Your task to perform on an android device: clear history in the chrome app Image 0: 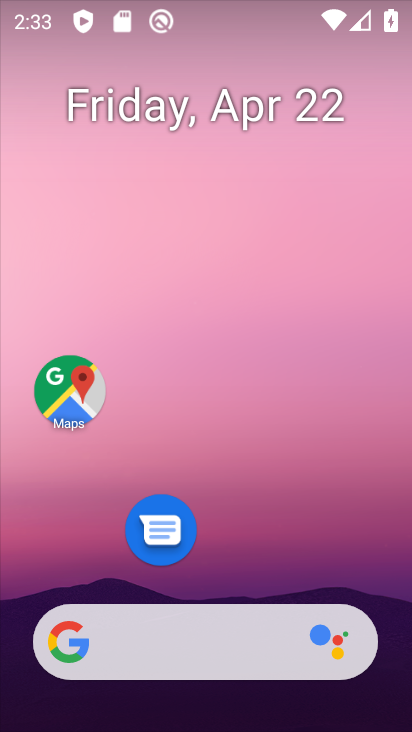
Step 0: drag from (263, 557) to (217, 19)
Your task to perform on an android device: clear history in the chrome app Image 1: 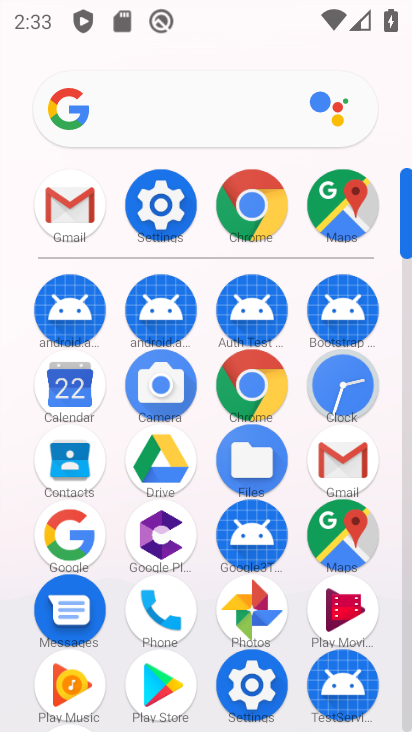
Step 1: click (242, 196)
Your task to perform on an android device: clear history in the chrome app Image 2: 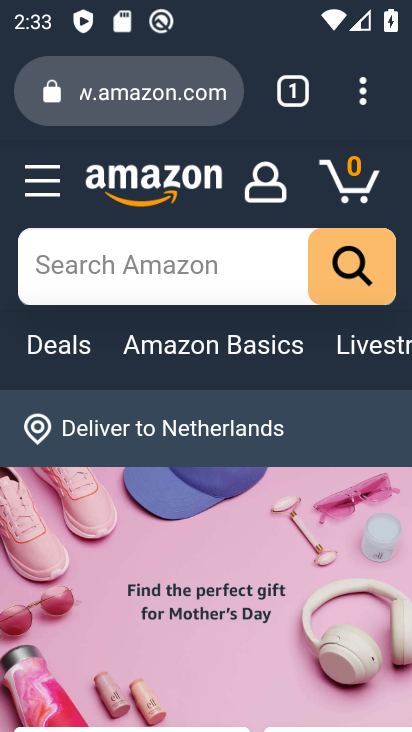
Step 2: click (359, 101)
Your task to perform on an android device: clear history in the chrome app Image 3: 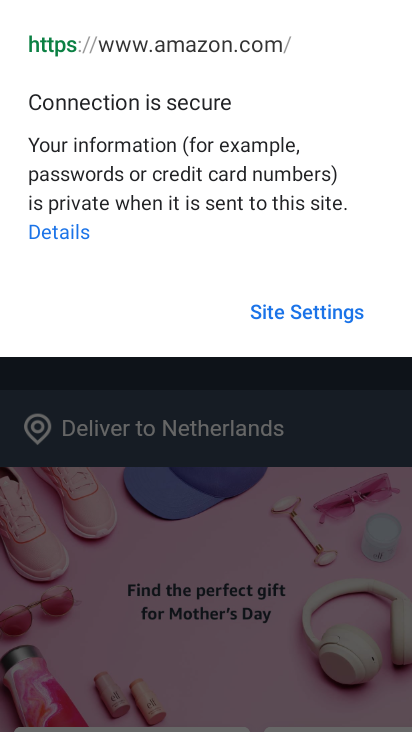
Step 3: click (262, 407)
Your task to perform on an android device: clear history in the chrome app Image 4: 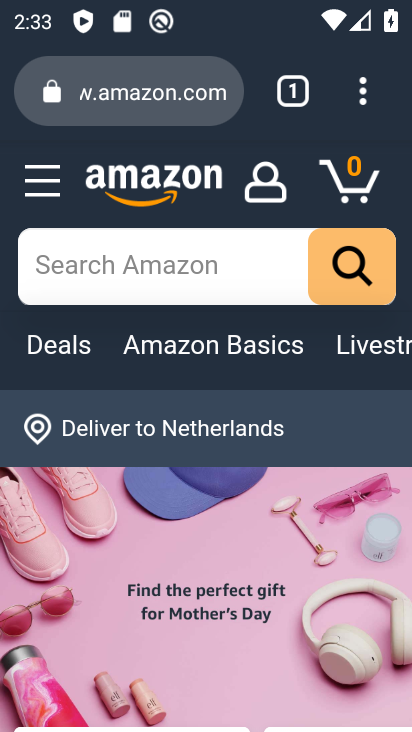
Step 4: click (368, 105)
Your task to perform on an android device: clear history in the chrome app Image 5: 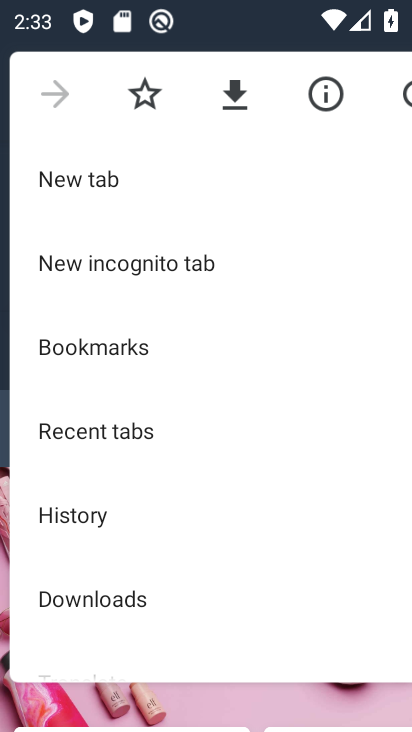
Step 5: click (325, 519)
Your task to perform on an android device: clear history in the chrome app Image 6: 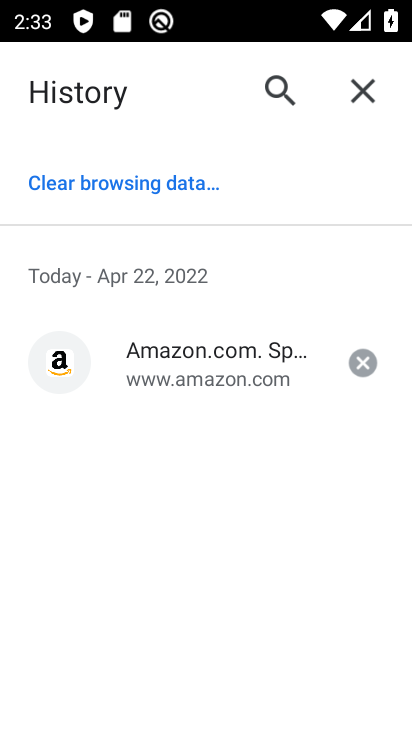
Step 6: click (111, 182)
Your task to perform on an android device: clear history in the chrome app Image 7: 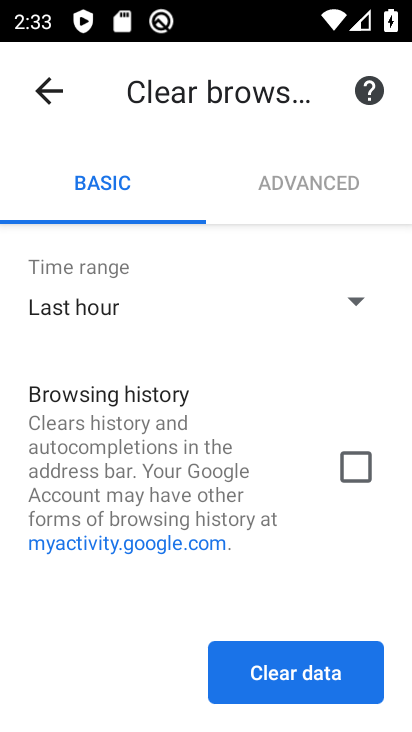
Step 7: click (354, 467)
Your task to perform on an android device: clear history in the chrome app Image 8: 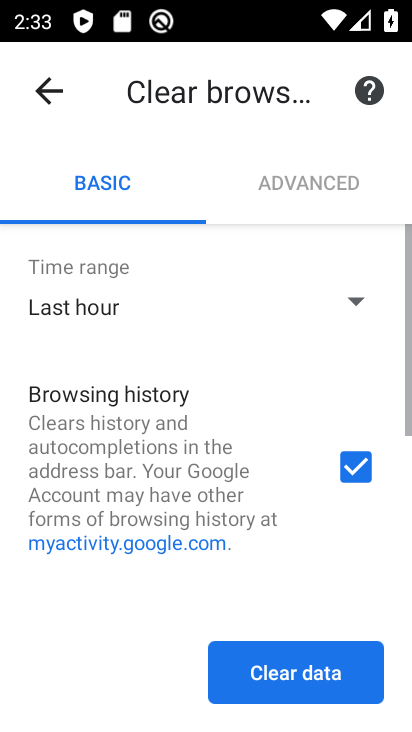
Step 8: click (292, 681)
Your task to perform on an android device: clear history in the chrome app Image 9: 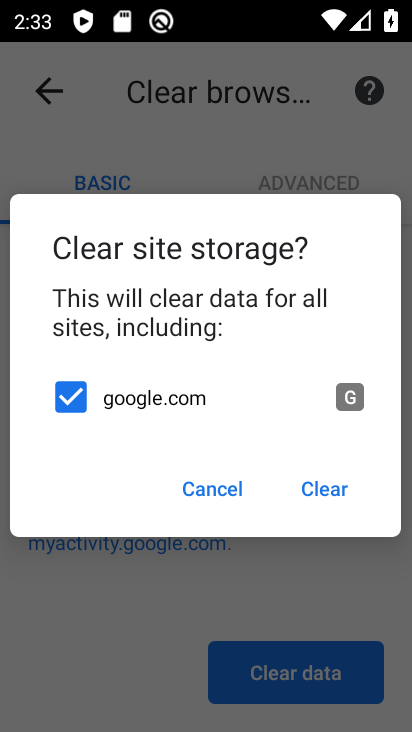
Step 9: click (320, 497)
Your task to perform on an android device: clear history in the chrome app Image 10: 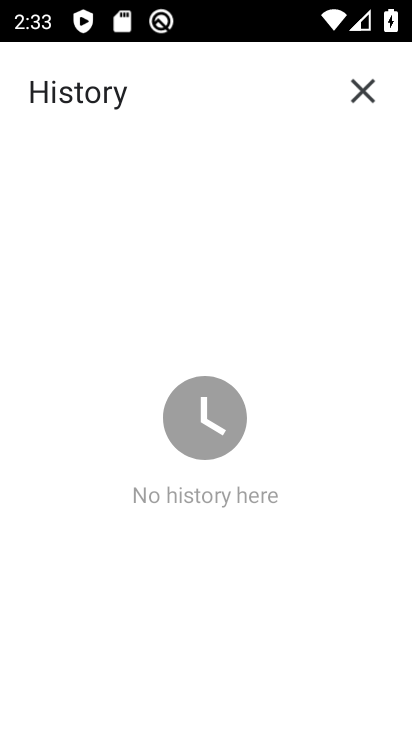
Step 10: task complete